Your task to perform on an android device: check storage Image 0: 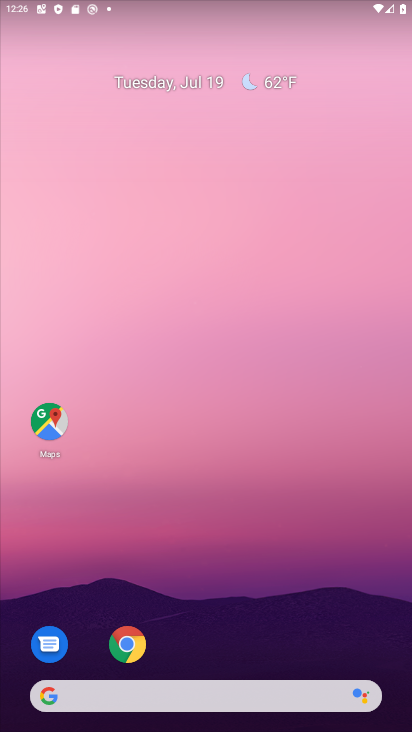
Step 0: drag from (258, 565) to (244, 196)
Your task to perform on an android device: check storage Image 1: 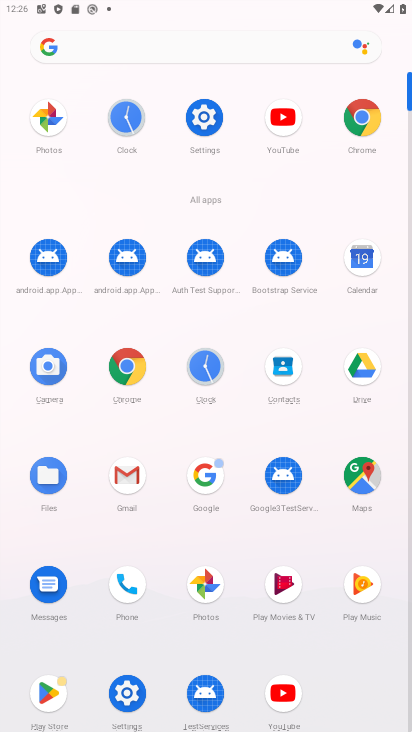
Step 1: click (203, 113)
Your task to perform on an android device: check storage Image 2: 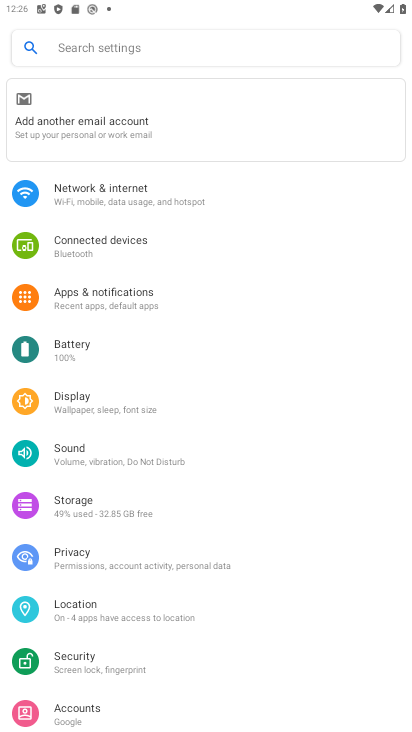
Step 2: click (72, 502)
Your task to perform on an android device: check storage Image 3: 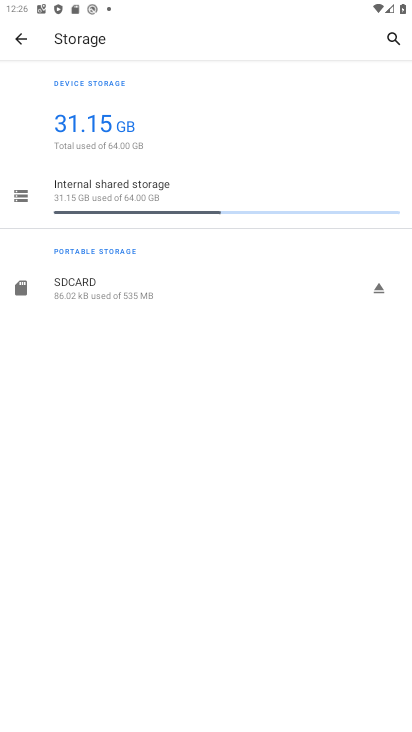
Step 3: task complete